Your task to perform on an android device: Open calendar and show me the second week of next month Image 0: 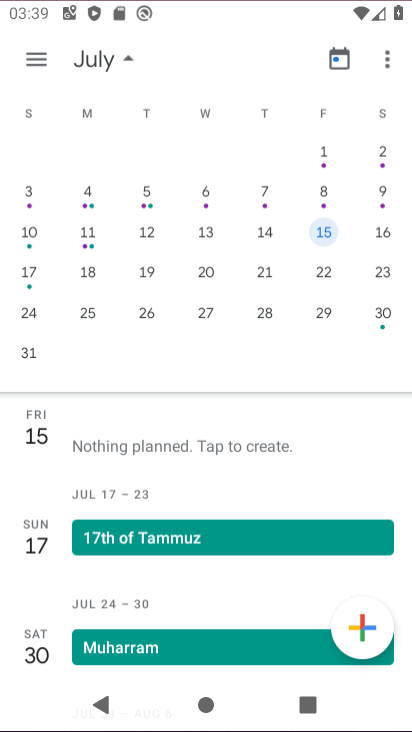
Step 0: press home button
Your task to perform on an android device: Open calendar and show me the second week of next month Image 1: 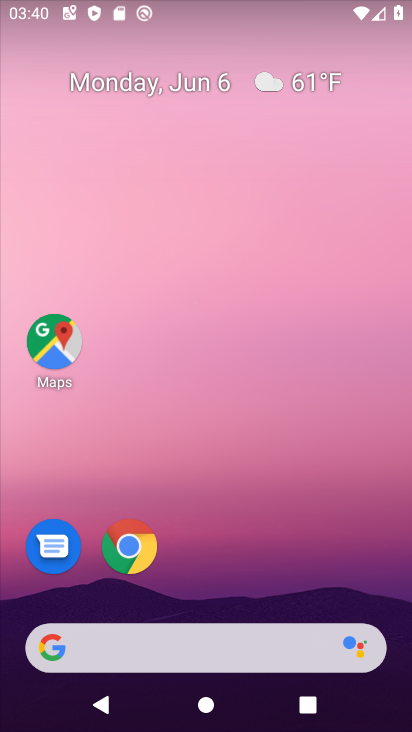
Step 1: drag from (298, 393) to (264, 14)
Your task to perform on an android device: Open calendar and show me the second week of next month Image 2: 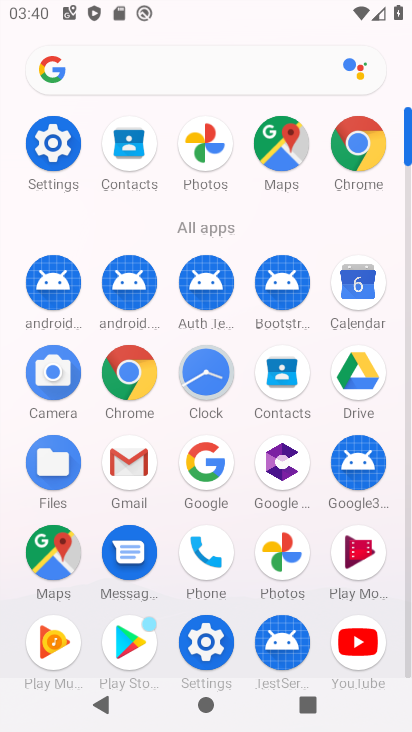
Step 2: click (358, 294)
Your task to perform on an android device: Open calendar and show me the second week of next month Image 3: 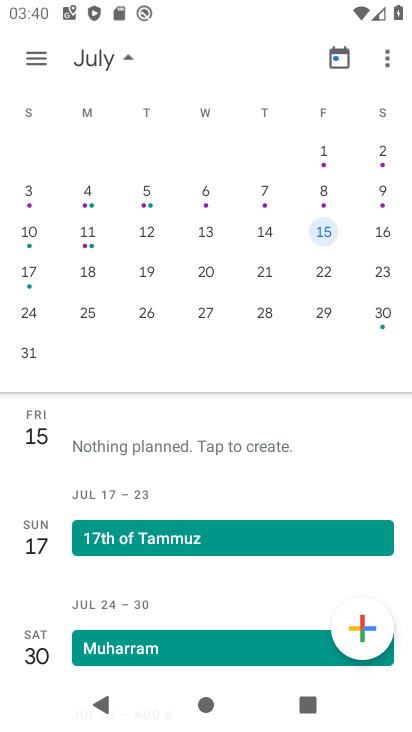
Step 3: click (323, 192)
Your task to perform on an android device: Open calendar and show me the second week of next month Image 4: 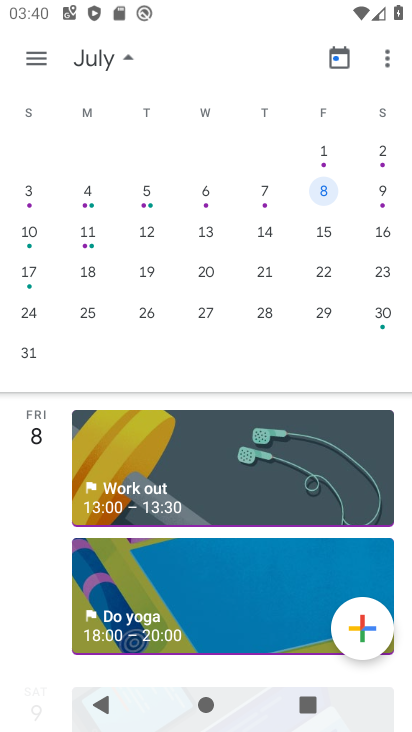
Step 4: task complete